Your task to perform on an android device: Go to ESPN.com Image 0: 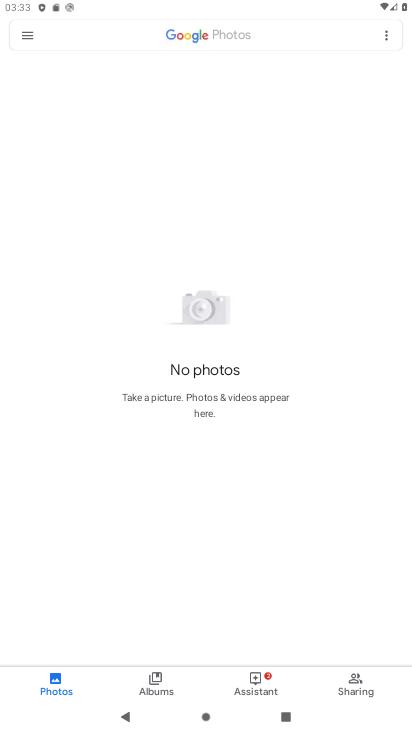
Step 0: press home button
Your task to perform on an android device: Go to ESPN.com Image 1: 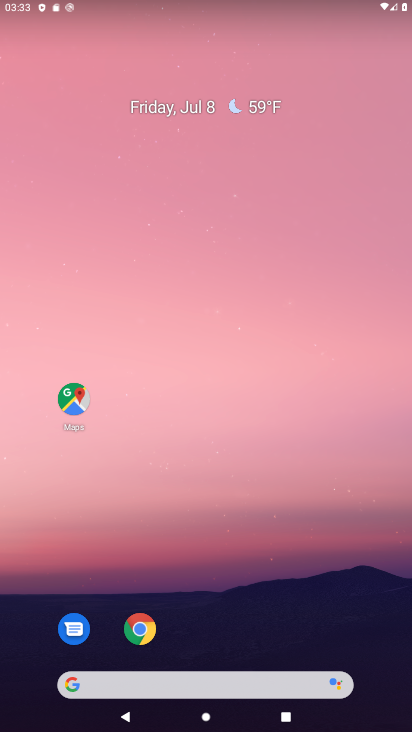
Step 1: click (140, 626)
Your task to perform on an android device: Go to ESPN.com Image 2: 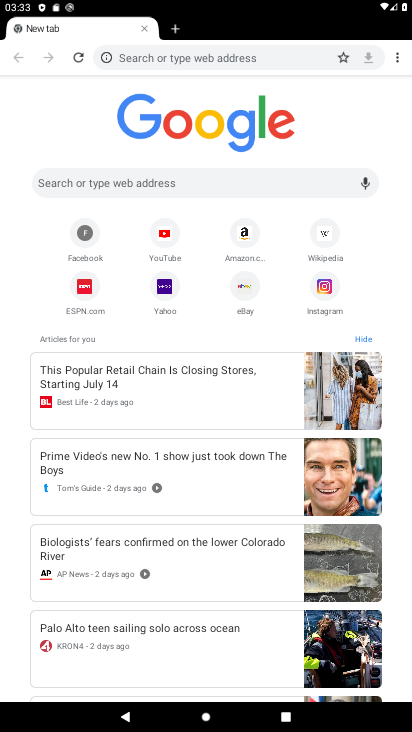
Step 2: click (87, 288)
Your task to perform on an android device: Go to ESPN.com Image 3: 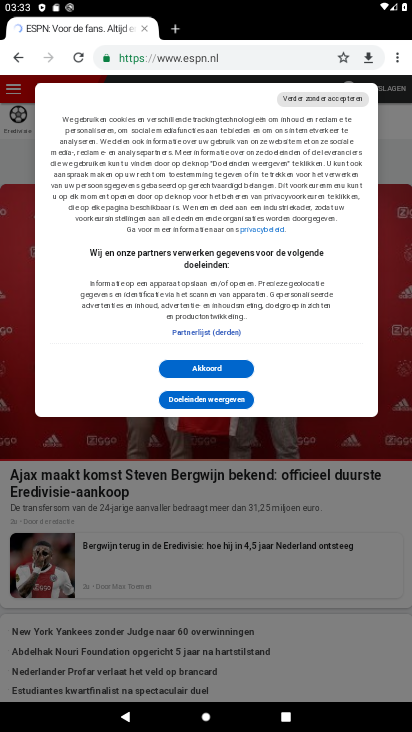
Step 3: click (203, 364)
Your task to perform on an android device: Go to ESPN.com Image 4: 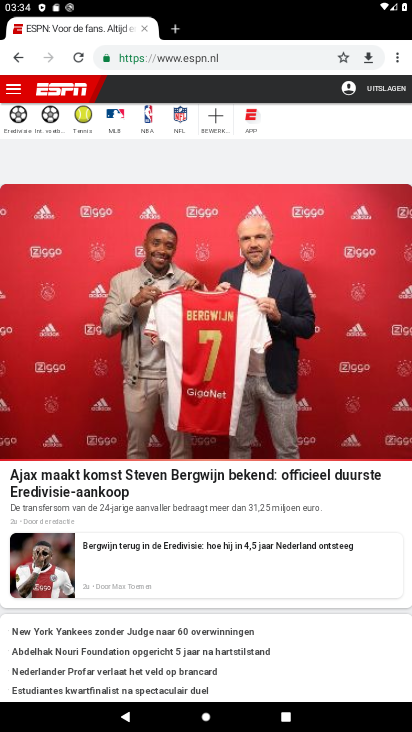
Step 4: task complete